Your task to perform on an android device: open device folders in google photos Image 0: 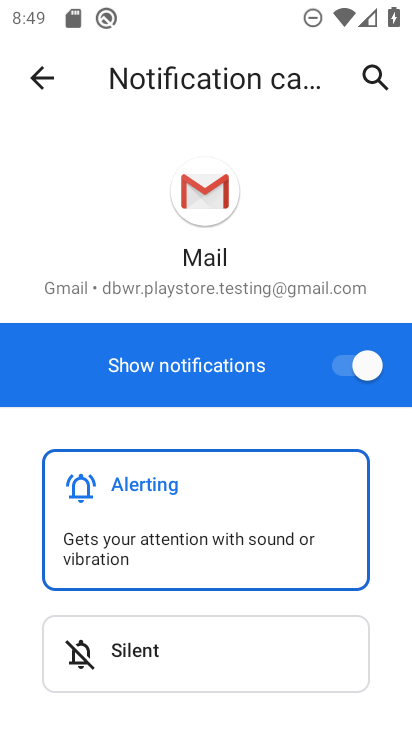
Step 0: press home button
Your task to perform on an android device: open device folders in google photos Image 1: 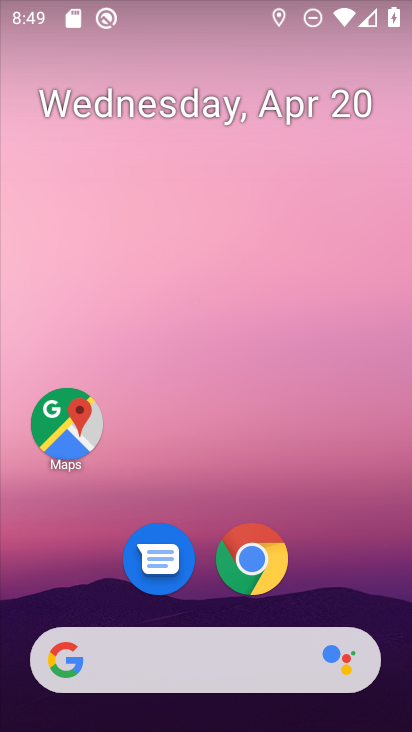
Step 1: drag from (351, 602) to (262, 267)
Your task to perform on an android device: open device folders in google photos Image 2: 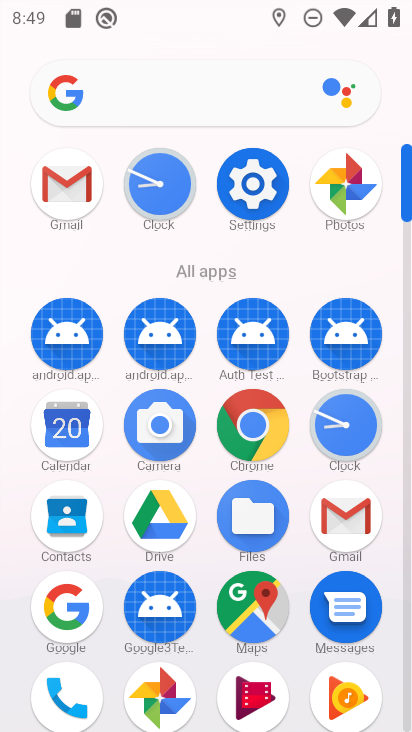
Step 2: click (409, 699)
Your task to perform on an android device: open device folders in google photos Image 3: 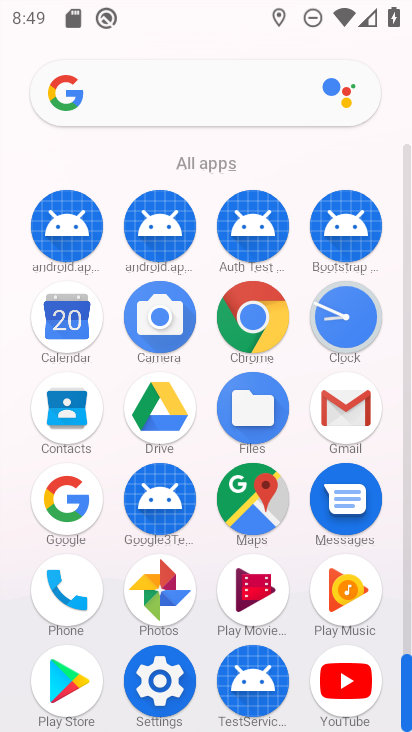
Step 3: click (158, 574)
Your task to perform on an android device: open device folders in google photos Image 4: 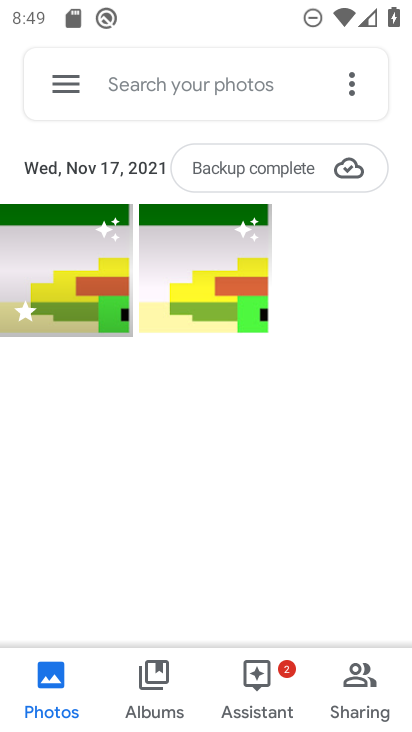
Step 4: click (63, 75)
Your task to perform on an android device: open device folders in google photos Image 5: 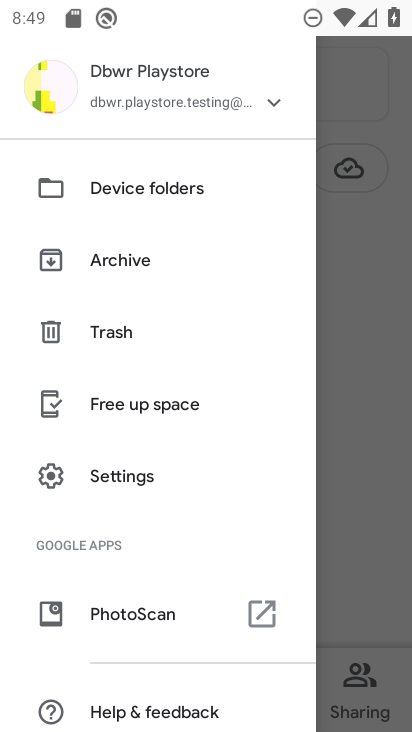
Step 5: click (136, 185)
Your task to perform on an android device: open device folders in google photos Image 6: 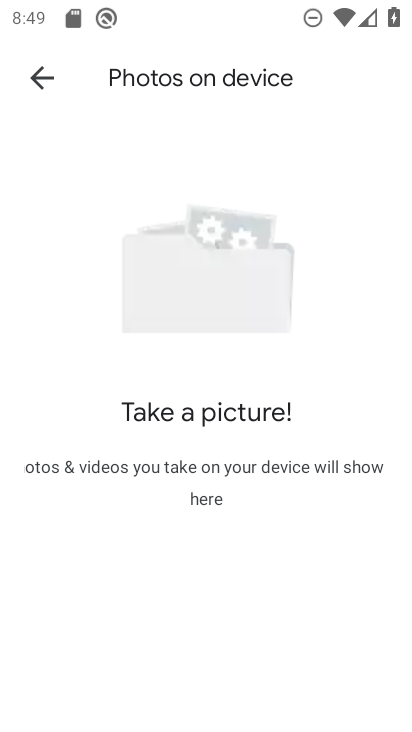
Step 6: task complete